Your task to perform on an android device: toggle translation in the chrome app Image 0: 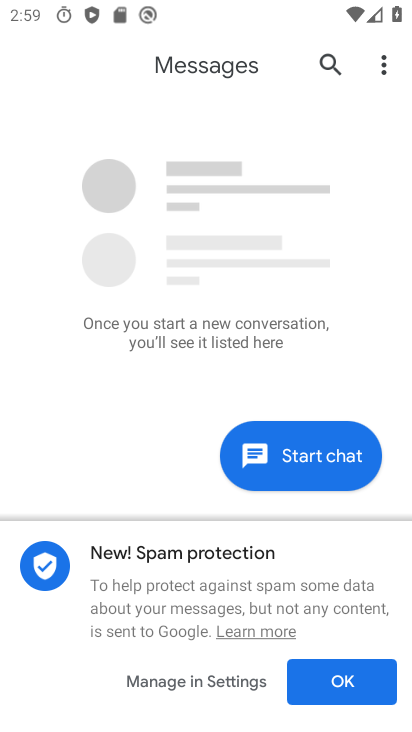
Step 0: press home button
Your task to perform on an android device: toggle translation in the chrome app Image 1: 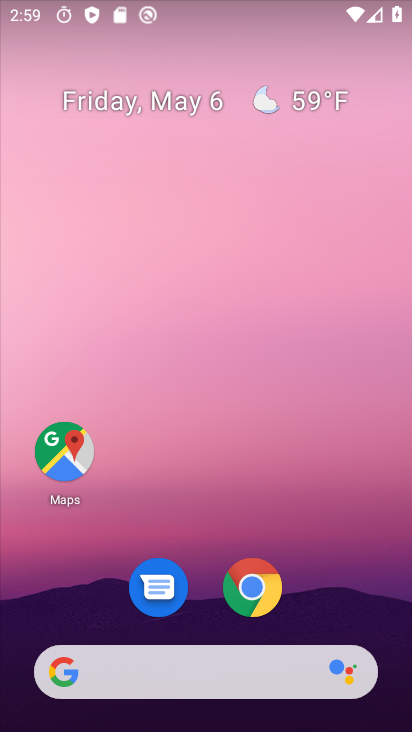
Step 1: click (255, 582)
Your task to perform on an android device: toggle translation in the chrome app Image 2: 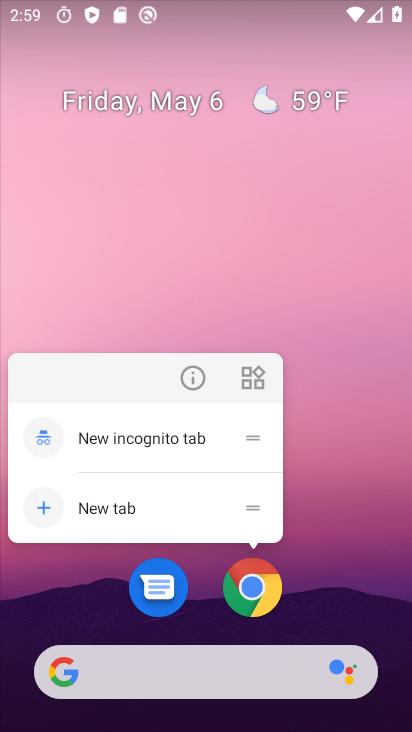
Step 2: click (255, 580)
Your task to perform on an android device: toggle translation in the chrome app Image 3: 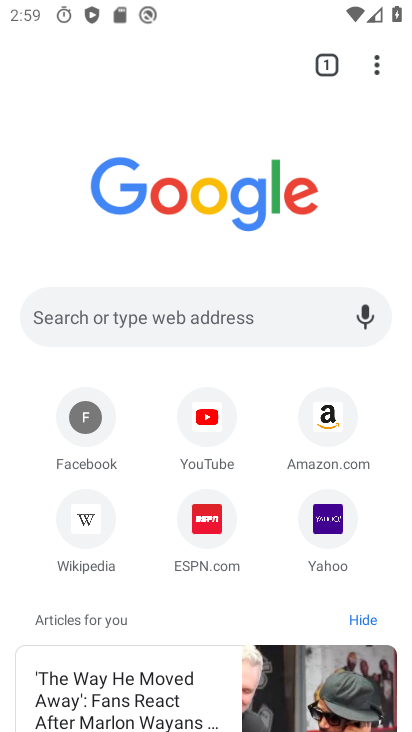
Step 3: drag from (374, 67) to (204, 558)
Your task to perform on an android device: toggle translation in the chrome app Image 4: 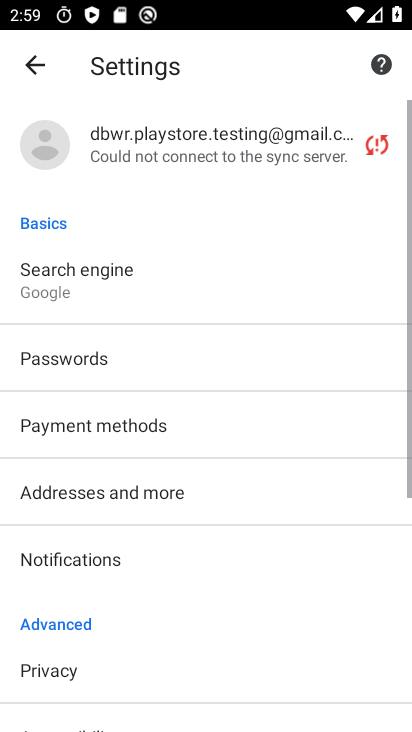
Step 4: drag from (206, 627) to (299, 171)
Your task to perform on an android device: toggle translation in the chrome app Image 5: 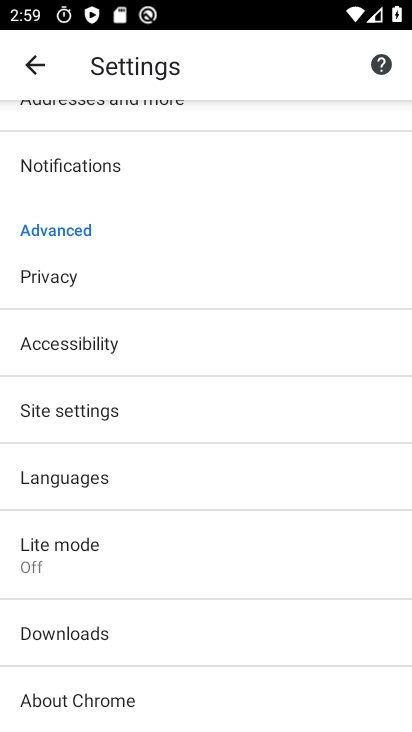
Step 5: click (173, 477)
Your task to perform on an android device: toggle translation in the chrome app Image 6: 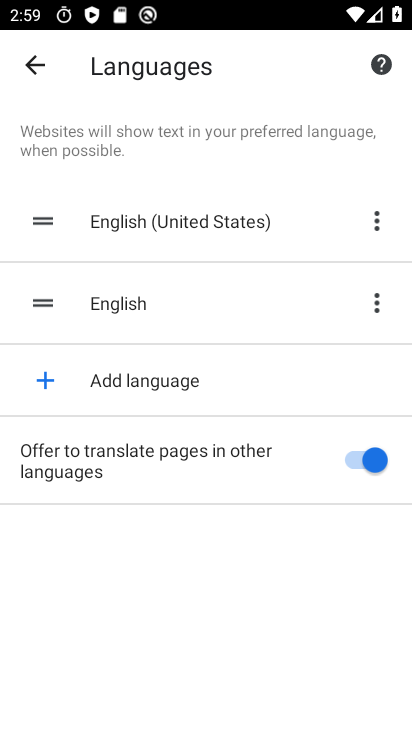
Step 6: click (348, 454)
Your task to perform on an android device: toggle translation in the chrome app Image 7: 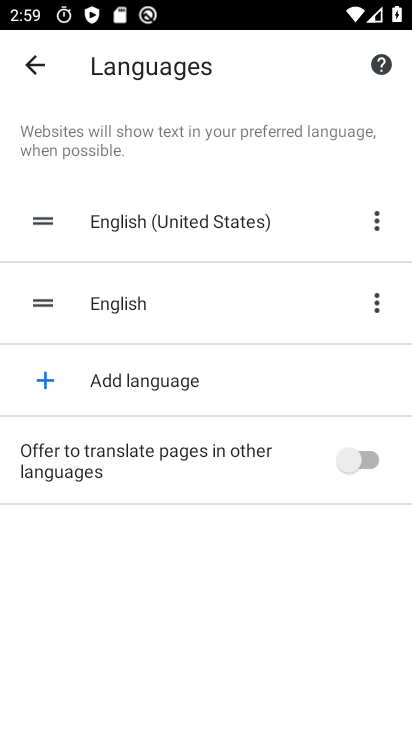
Step 7: task complete